Your task to perform on an android device: open chrome and create a bookmark for the current page Image 0: 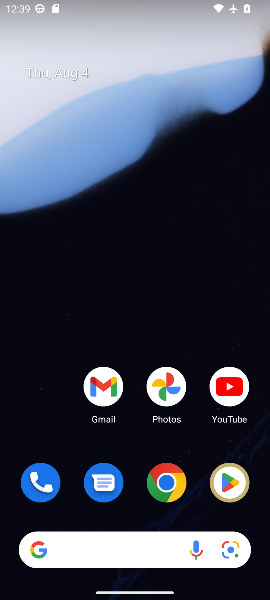
Step 0: click (171, 492)
Your task to perform on an android device: open chrome and create a bookmark for the current page Image 1: 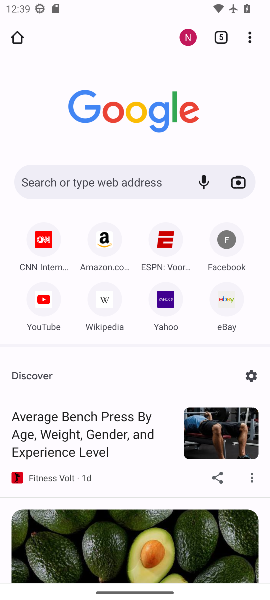
Step 1: drag from (139, 427) to (135, 151)
Your task to perform on an android device: open chrome and create a bookmark for the current page Image 2: 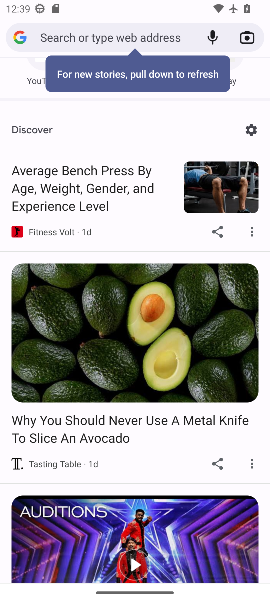
Step 2: click (92, 353)
Your task to perform on an android device: open chrome and create a bookmark for the current page Image 3: 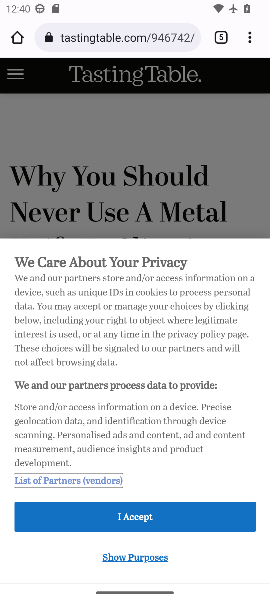
Step 3: click (250, 37)
Your task to perform on an android device: open chrome and create a bookmark for the current page Image 4: 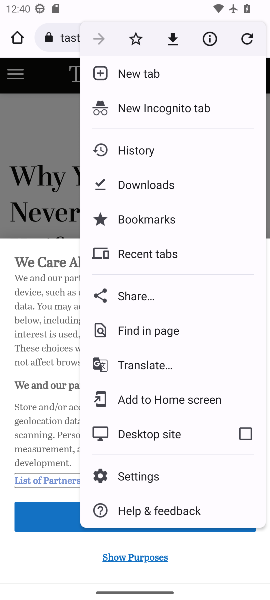
Step 4: click (139, 38)
Your task to perform on an android device: open chrome and create a bookmark for the current page Image 5: 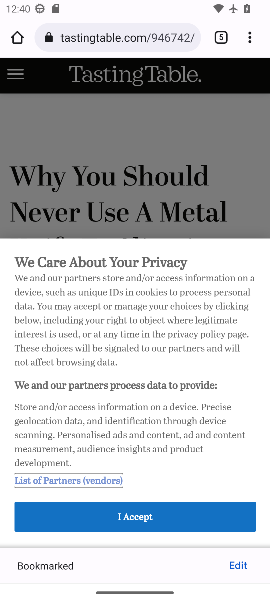
Step 5: task complete